Your task to perform on an android device: change alarm snooze length Image 0: 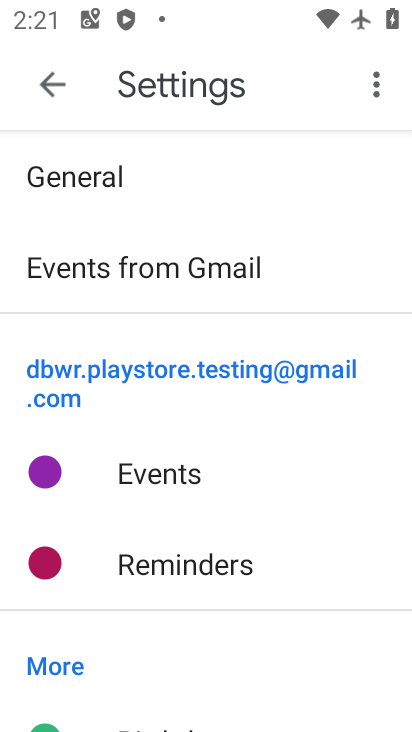
Step 0: press home button
Your task to perform on an android device: change alarm snooze length Image 1: 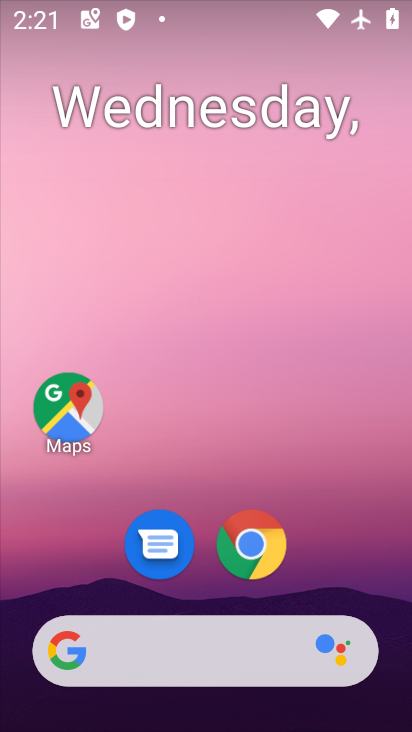
Step 1: drag from (350, 554) to (322, 116)
Your task to perform on an android device: change alarm snooze length Image 2: 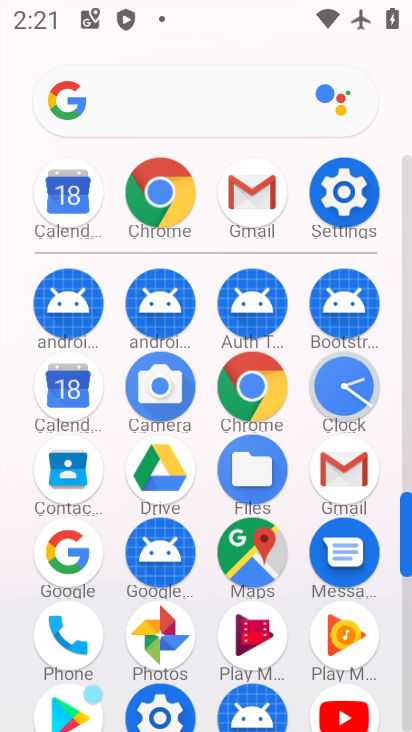
Step 2: click (325, 372)
Your task to perform on an android device: change alarm snooze length Image 3: 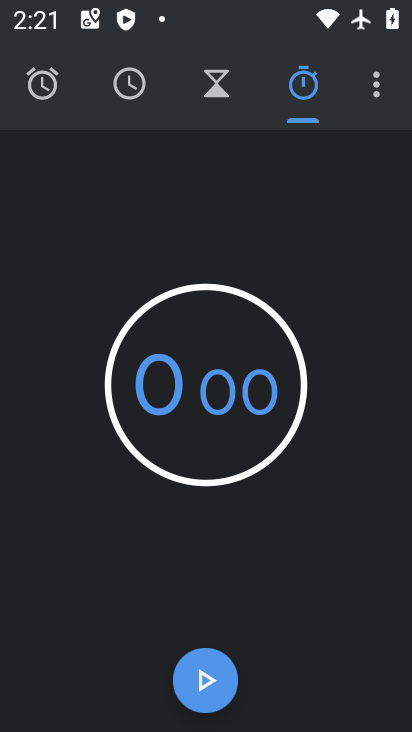
Step 3: click (389, 100)
Your task to perform on an android device: change alarm snooze length Image 4: 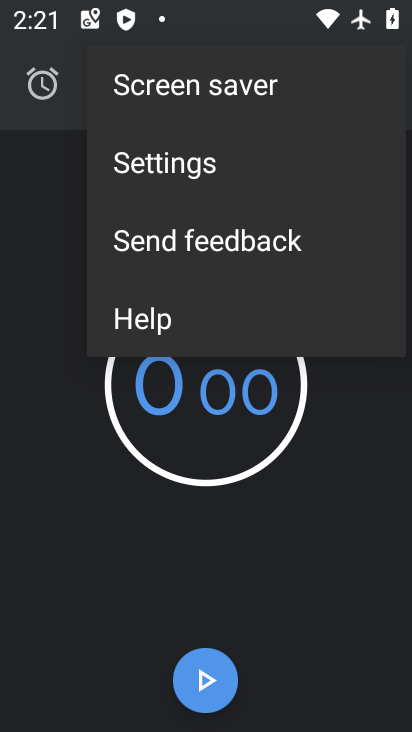
Step 4: click (318, 171)
Your task to perform on an android device: change alarm snooze length Image 5: 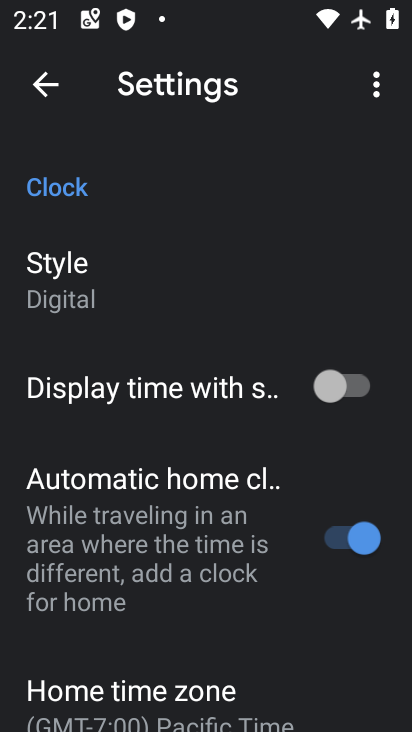
Step 5: drag from (175, 500) to (258, 192)
Your task to perform on an android device: change alarm snooze length Image 6: 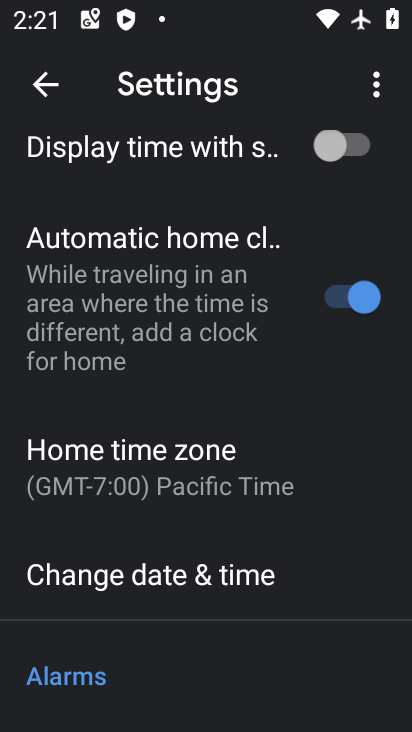
Step 6: drag from (162, 525) to (206, 296)
Your task to perform on an android device: change alarm snooze length Image 7: 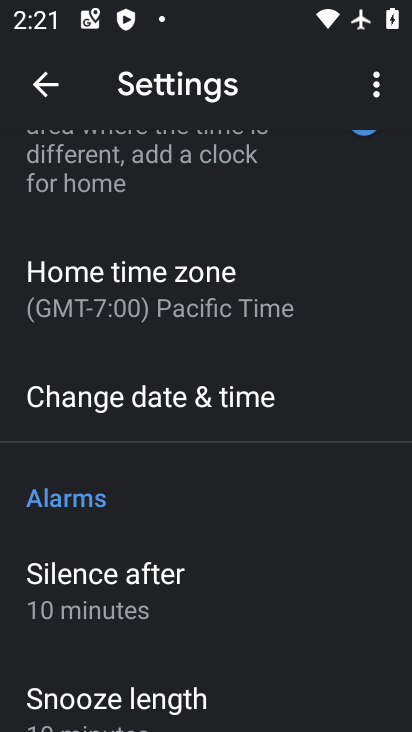
Step 7: drag from (129, 598) to (199, 355)
Your task to perform on an android device: change alarm snooze length Image 8: 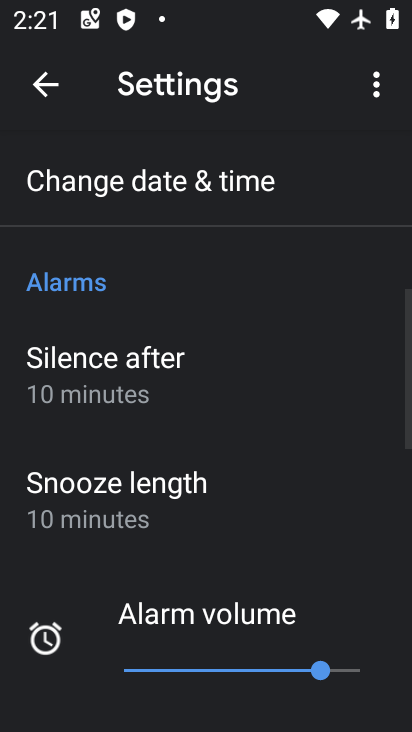
Step 8: click (140, 528)
Your task to perform on an android device: change alarm snooze length Image 9: 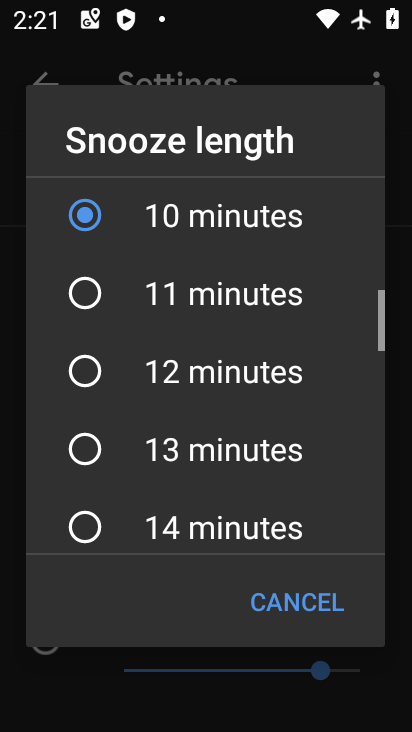
Step 9: click (170, 363)
Your task to perform on an android device: change alarm snooze length Image 10: 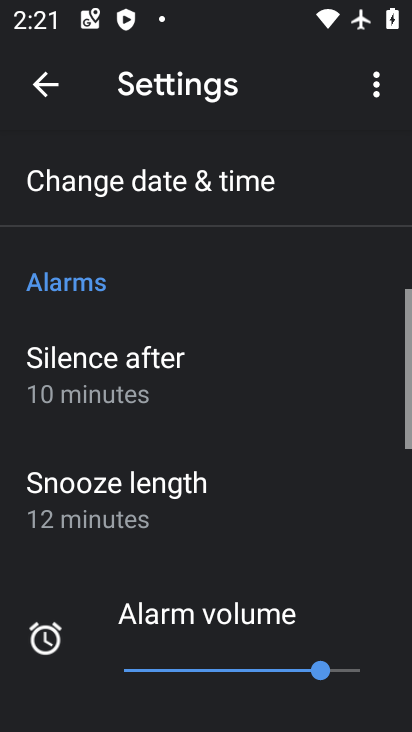
Step 10: task complete